Your task to perform on an android device: open a bookmark in the chrome app Image 0: 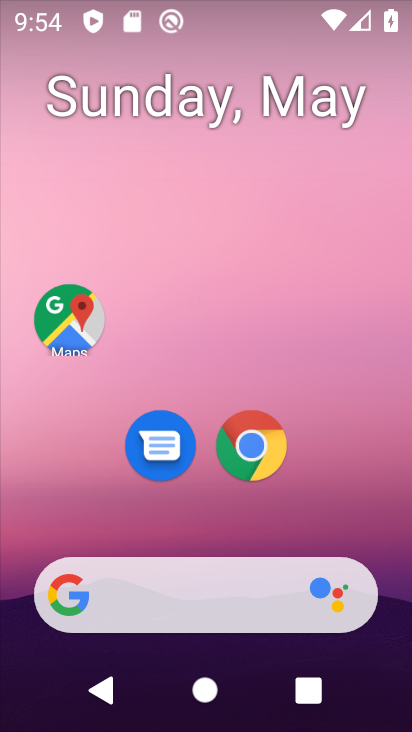
Step 0: click (263, 435)
Your task to perform on an android device: open a bookmark in the chrome app Image 1: 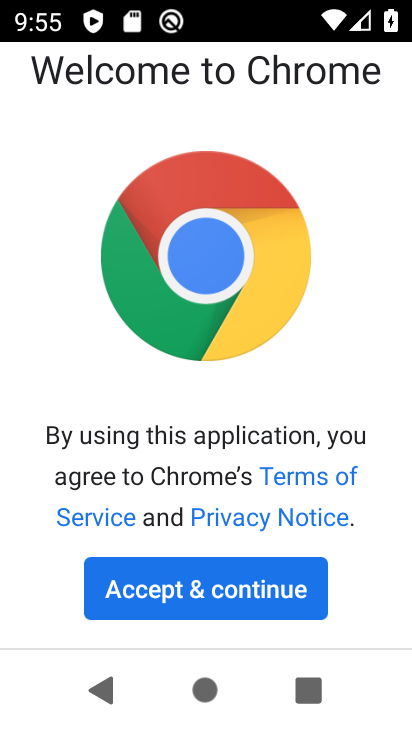
Step 1: click (264, 614)
Your task to perform on an android device: open a bookmark in the chrome app Image 2: 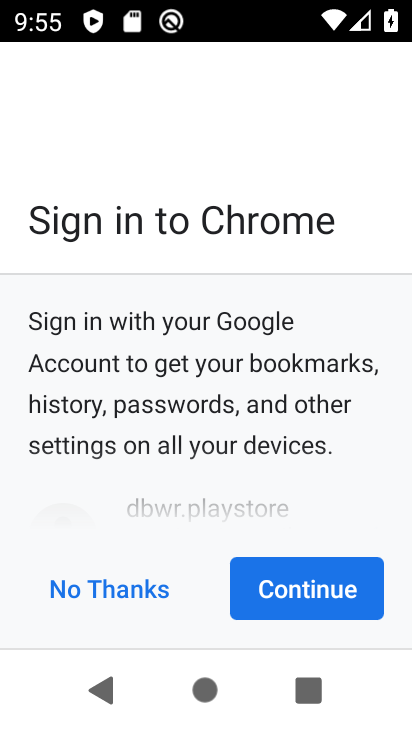
Step 2: click (345, 590)
Your task to perform on an android device: open a bookmark in the chrome app Image 3: 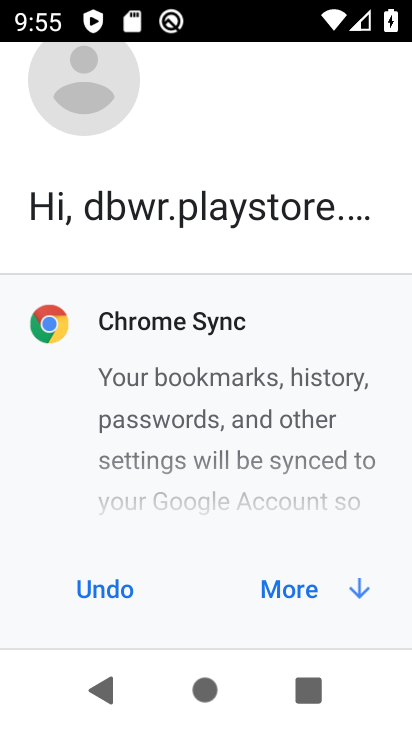
Step 3: click (330, 601)
Your task to perform on an android device: open a bookmark in the chrome app Image 4: 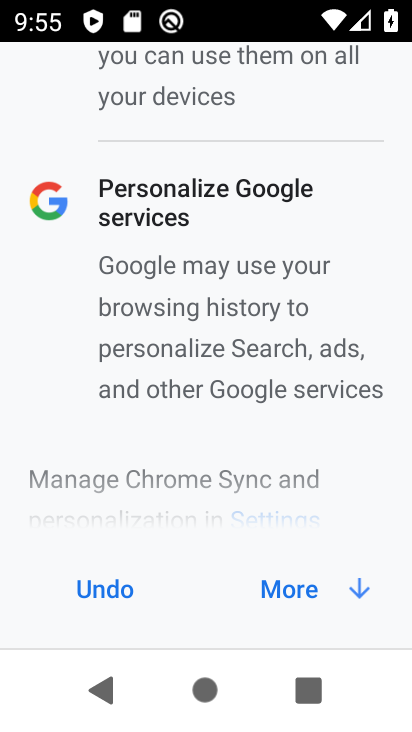
Step 4: click (330, 601)
Your task to perform on an android device: open a bookmark in the chrome app Image 5: 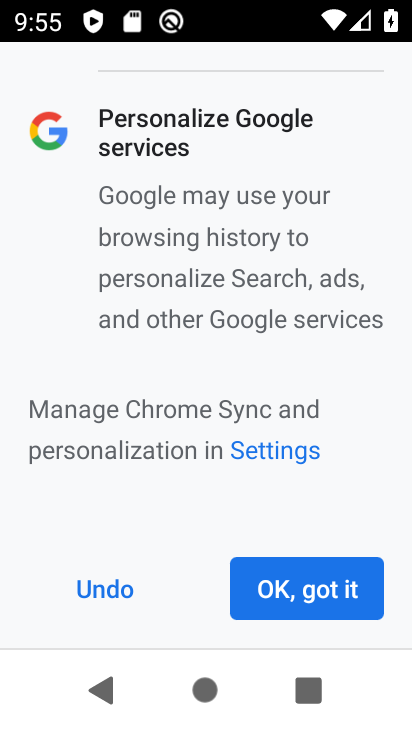
Step 5: click (329, 602)
Your task to perform on an android device: open a bookmark in the chrome app Image 6: 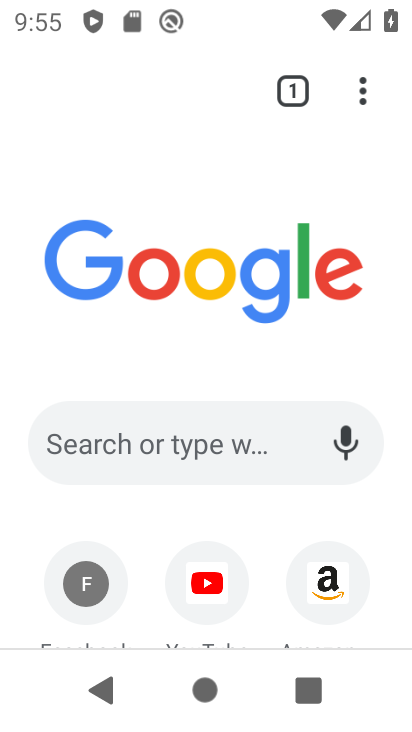
Step 6: drag from (384, 95) to (298, 343)
Your task to perform on an android device: open a bookmark in the chrome app Image 7: 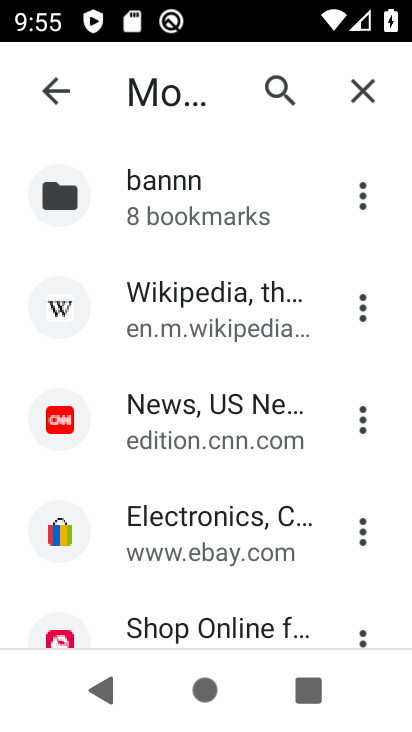
Step 7: click (240, 423)
Your task to perform on an android device: open a bookmark in the chrome app Image 8: 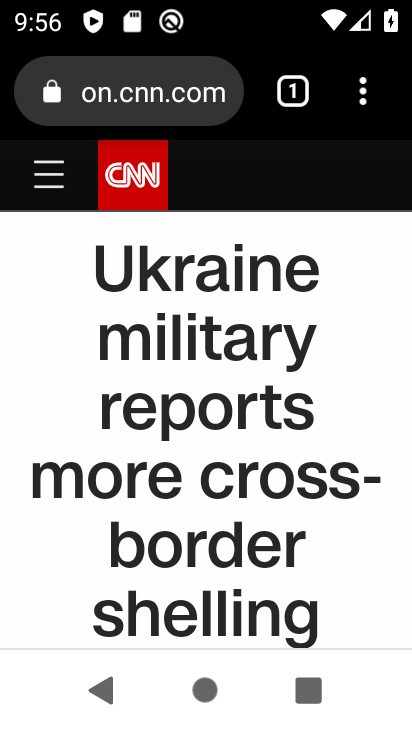
Step 8: task complete